Your task to perform on an android device: Open Amazon Image 0: 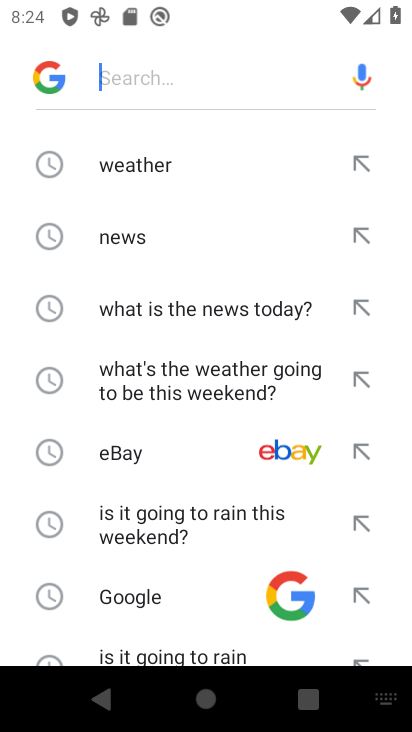
Step 0: press home button
Your task to perform on an android device: Open Amazon Image 1: 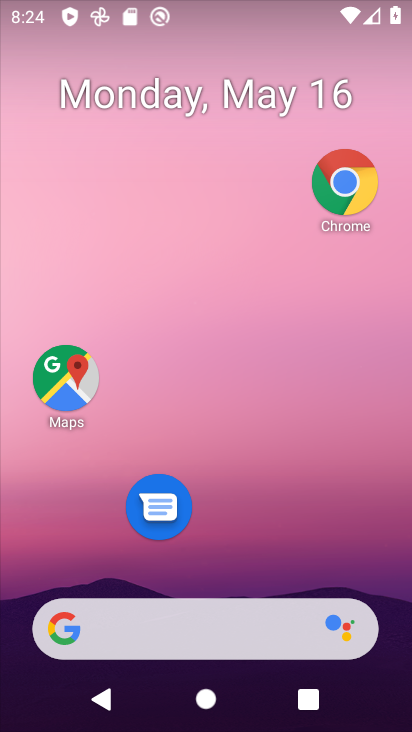
Step 1: drag from (273, 542) to (298, 425)
Your task to perform on an android device: Open Amazon Image 2: 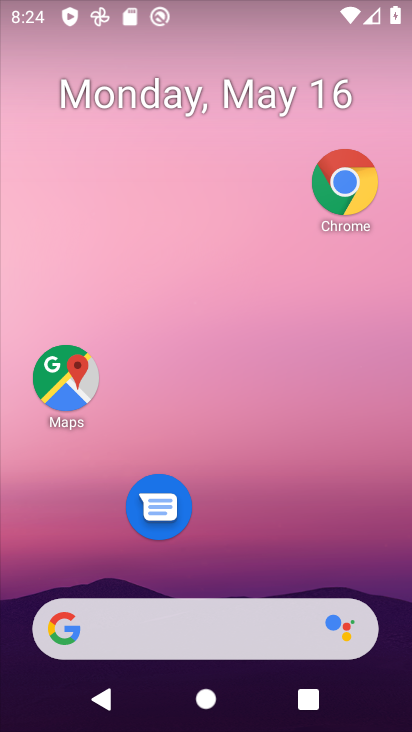
Step 2: click (337, 187)
Your task to perform on an android device: Open Amazon Image 3: 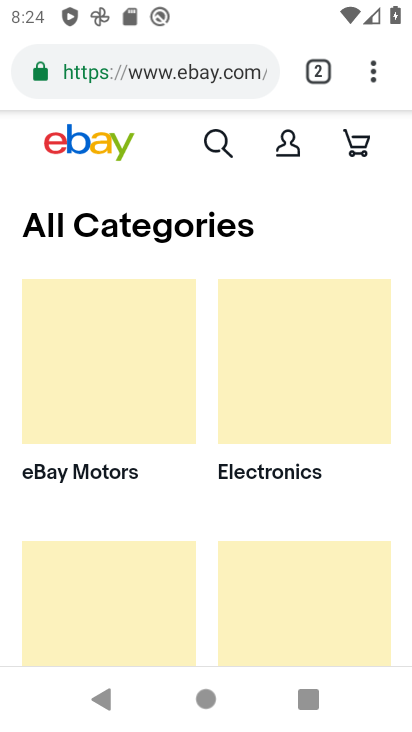
Step 3: drag from (373, 76) to (112, 136)
Your task to perform on an android device: Open Amazon Image 4: 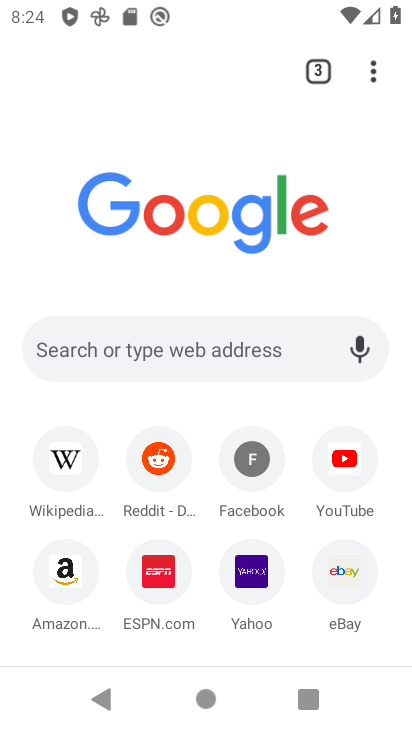
Step 4: click (62, 564)
Your task to perform on an android device: Open Amazon Image 5: 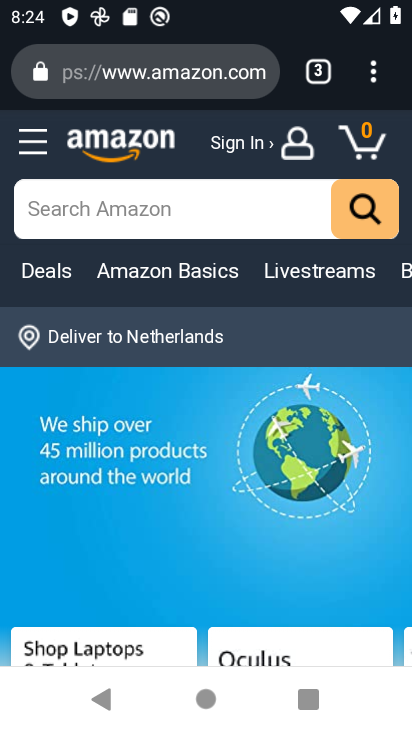
Step 5: task complete